Your task to perform on an android device: Open my contact list Image 0: 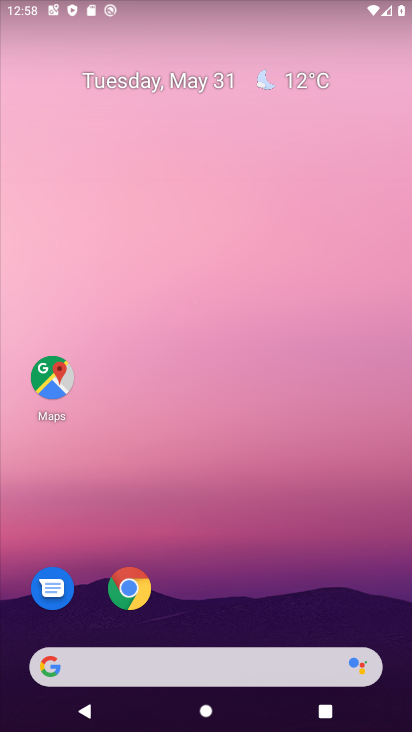
Step 0: drag from (194, 601) to (202, 150)
Your task to perform on an android device: Open my contact list Image 1: 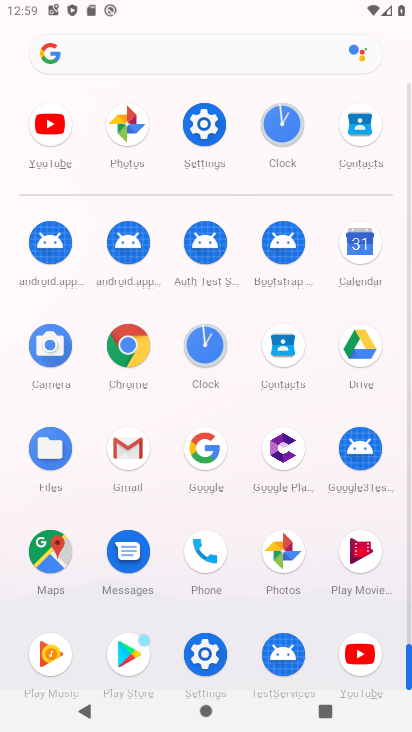
Step 1: click (281, 358)
Your task to perform on an android device: Open my contact list Image 2: 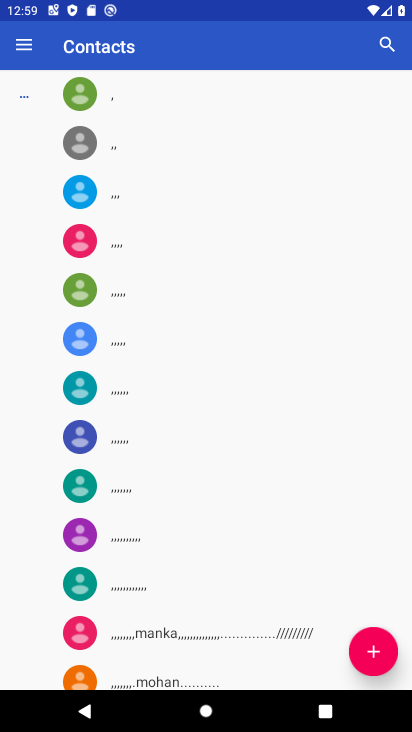
Step 2: task complete